Your task to perform on an android device: toggle pop-ups in chrome Image 0: 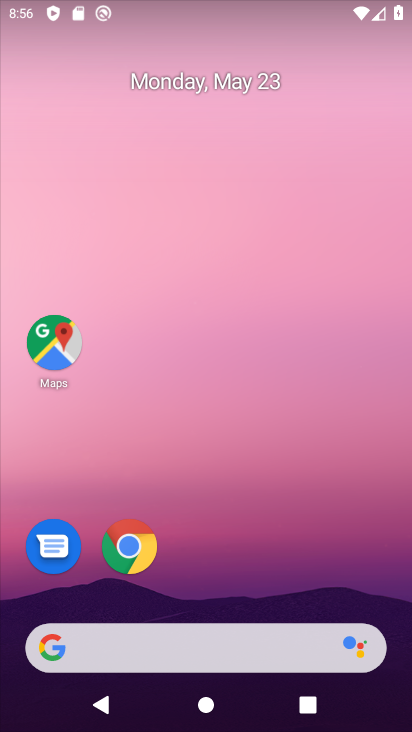
Step 0: click (131, 545)
Your task to perform on an android device: toggle pop-ups in chrome Image 1: 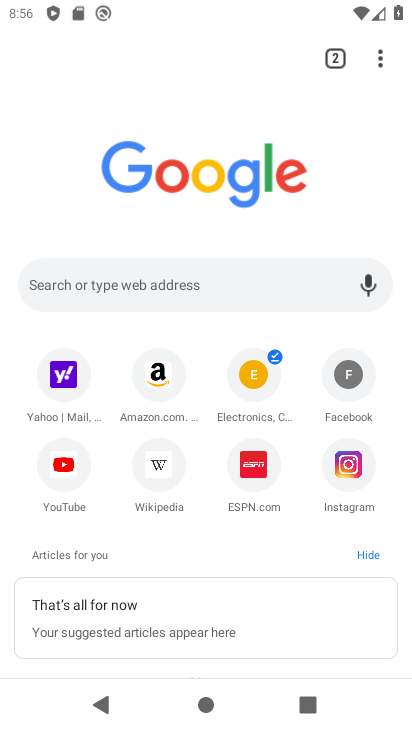
Step 1: drag from (385, 49) to (215, 514)
Your task to perform on an android device: toggle pop-ups in chrome Image 2: 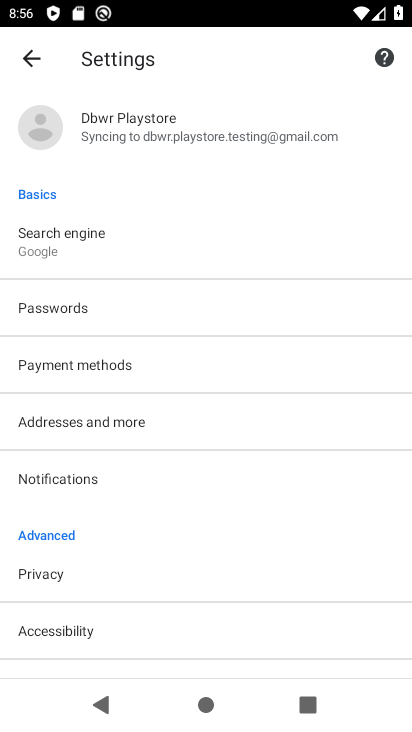
Step 2: drag from (214, 514) to (264, 99)
Your task to perform on an android device: toggle pop-ups in chrome Image 3: 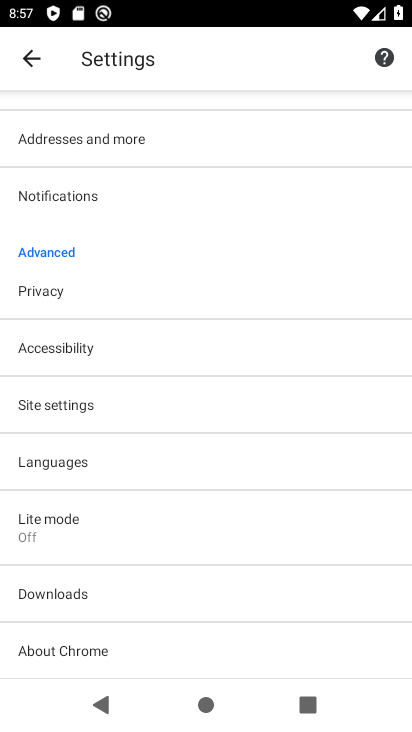
Step 3: click (44, 393)
Your task to perform on an android device: toggle pop-ups in chrome Image 4: 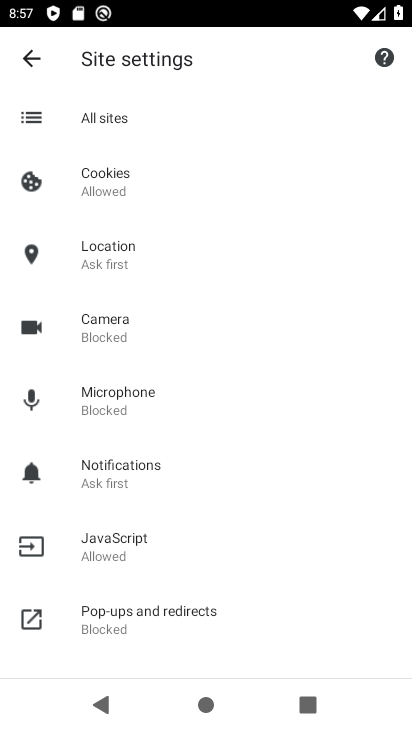
Step 4: click (132, 623)
Your task to perform on an android device: toggle pop-ups in chrome Image 5: 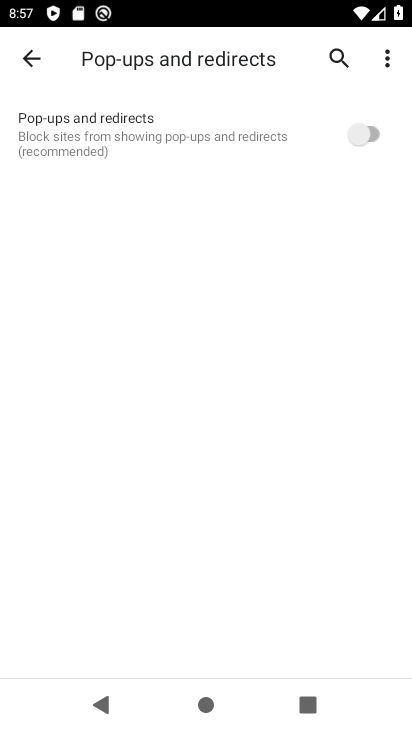
Step 5: click (356, 132)
Your task to perform on an android device: toggle pop-ups in chrome Image 6: 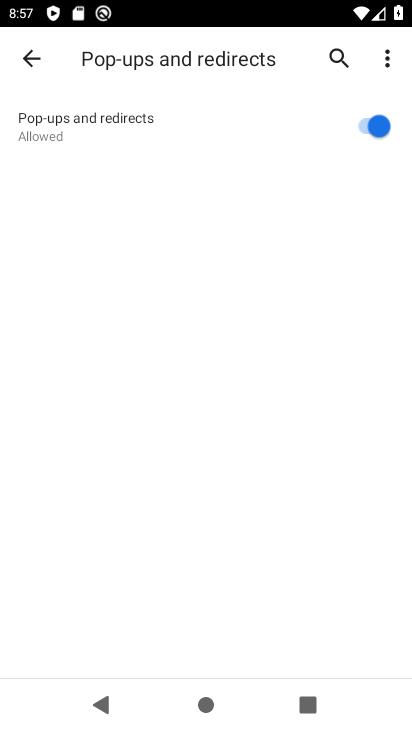
Step 6: task complete